Your task to perform on an android device: set default search engine in the chrome app Image 0: 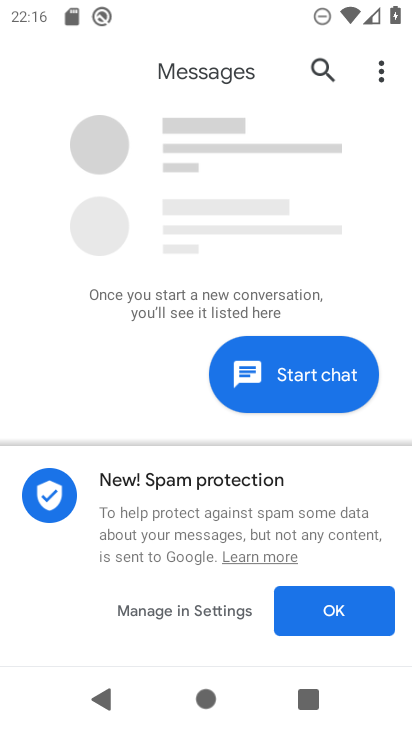
Step 0: press home button
Your task to perform on an android device: set default search engine in the chrome app Image 1: 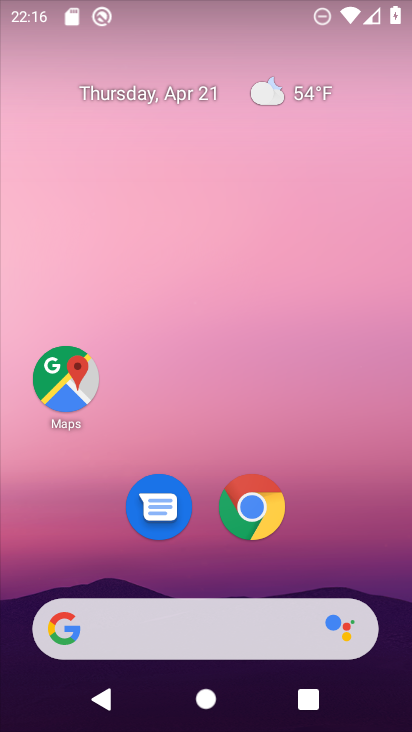
Step 1: click (251, 511)
Your task to perform on an android device: set default search engine in the chrome app Image 2: 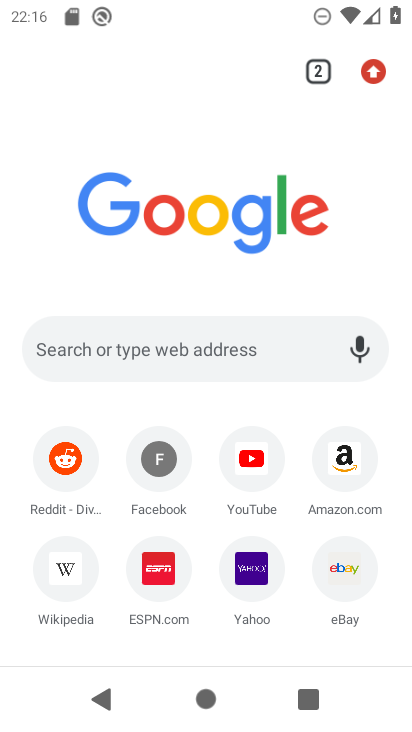
Step 2: click (376, 79)
Your task to perform on an android device: set default search engine in the chrome app Image 3: 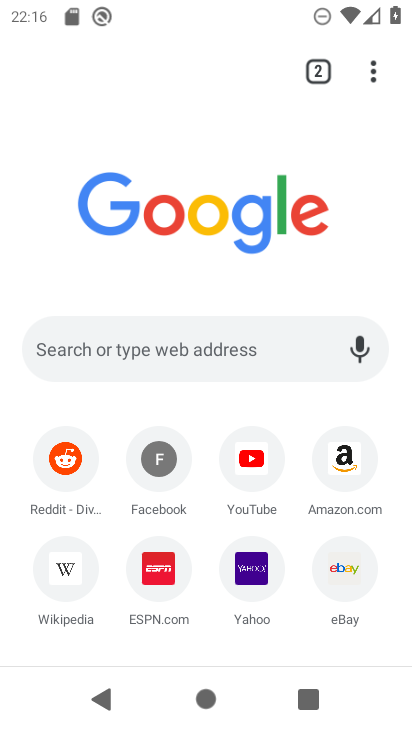
Step 3: click (376, 79)
Your task to perform on an android device: set default search engine in the chrome app Image 4: 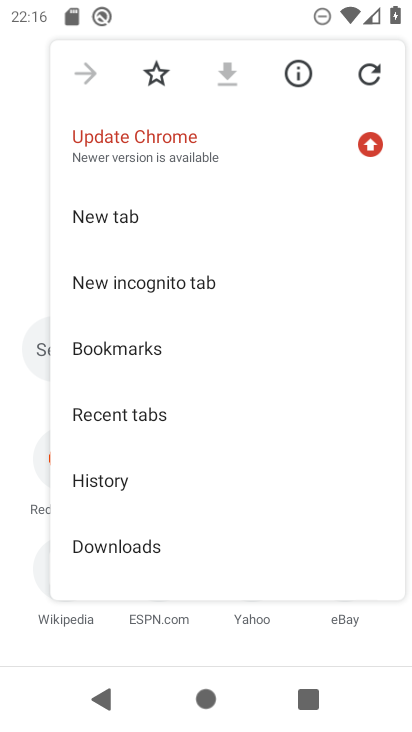
Step 4: drag from (132, 564) to (111, 267)
Your task to perform on an android device: set default search engine in the chrome app Image 5: 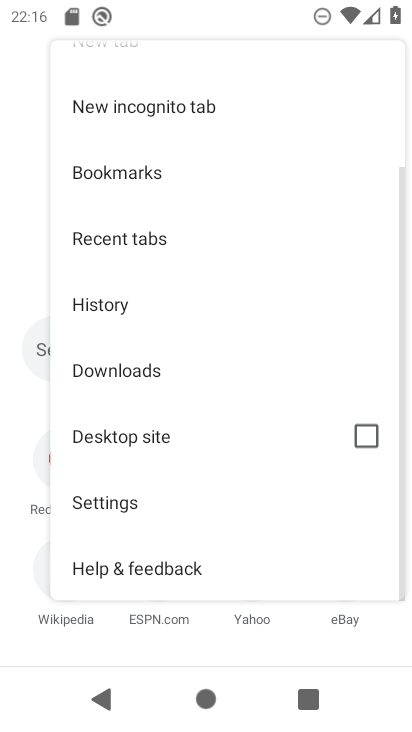
Step 5: click (117, 516)
Your task to perform on an android device: set default search engine in the chrome app Image 6: 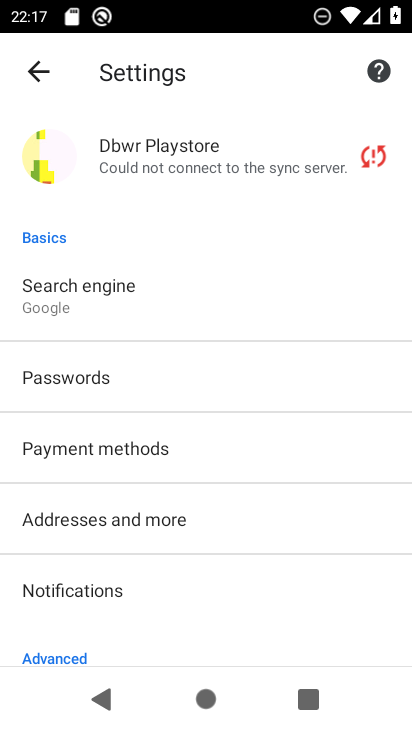
Step 6: click (43, 302)
Your task to perform on an android device: set default search engine in the chrome app Image 7: 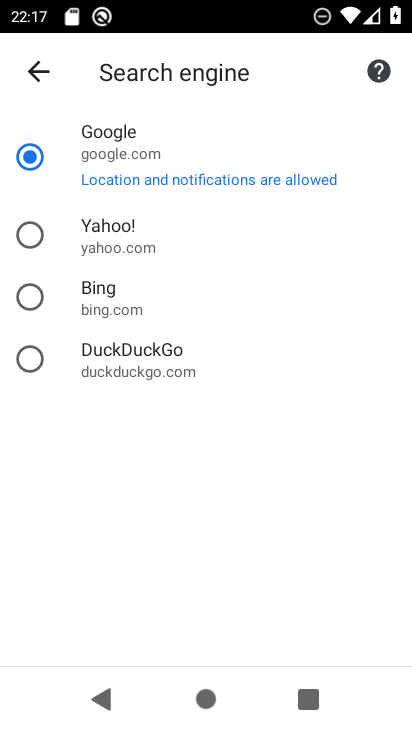
Step 7: task complete